Your task to perform on an android device: Open Google Image 0: 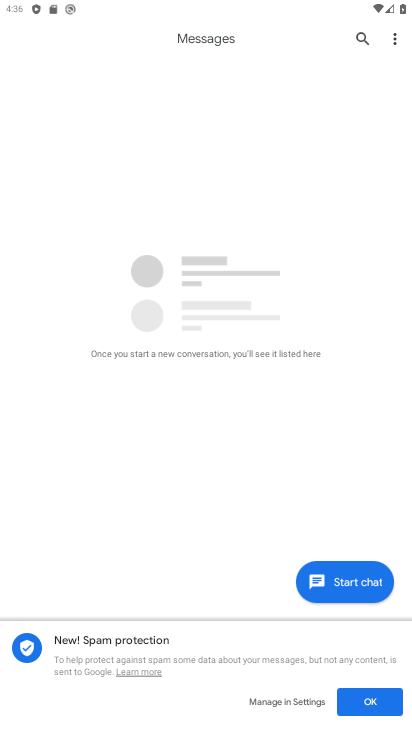
Step 0: press home button
Your task to perform on an android device: Open Google Image 1: 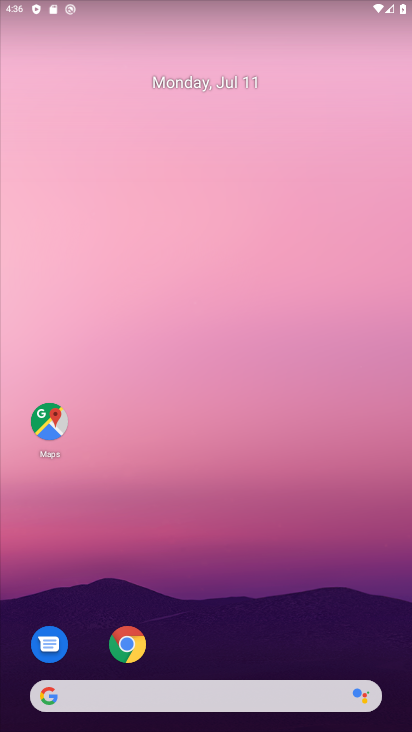
Step 1: drag from (156, 685) to (178, 266)
Your task to perform on an android device: Open Google Image 2: 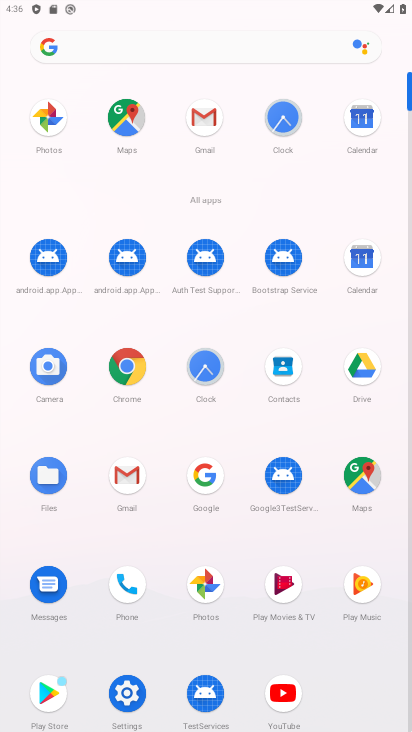
Step 2: click (209, 477)
Your task to perform on an android device: Open Google Image 3: 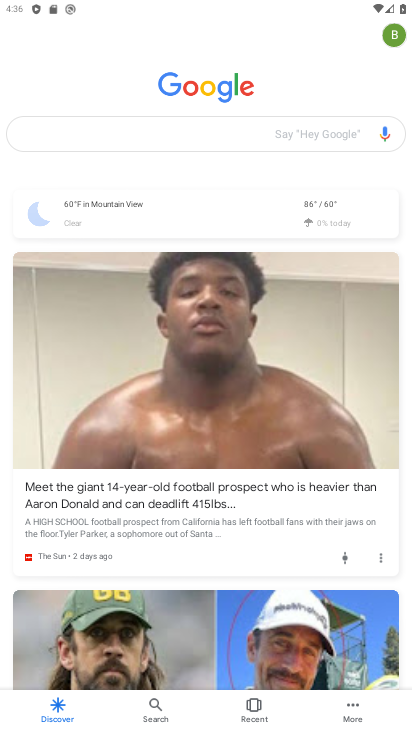
Step 3: task complete